Your task to perform on an android device: turn pop-ups off in chrome Image 0: 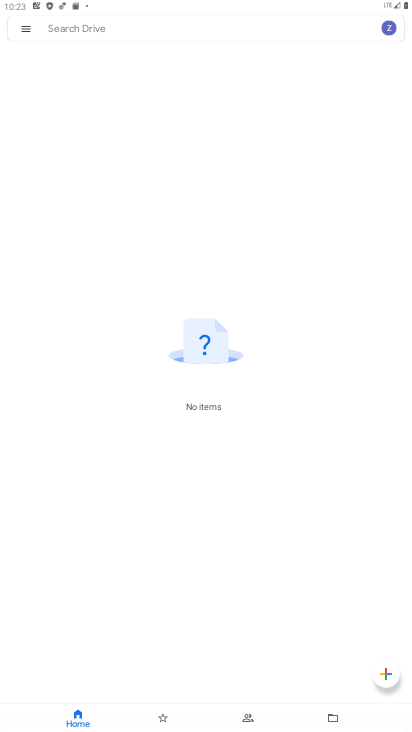
Step 0: press home button
Your task to perform on an android device: turn pop-ups off in chrome Image 1: 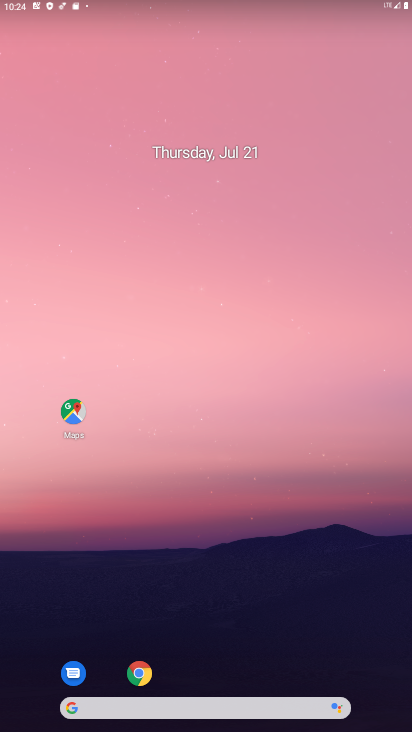
Step 1: click (148, 667)
Your task to perform on an android device: turn pop-ups off in chrome Image 2: 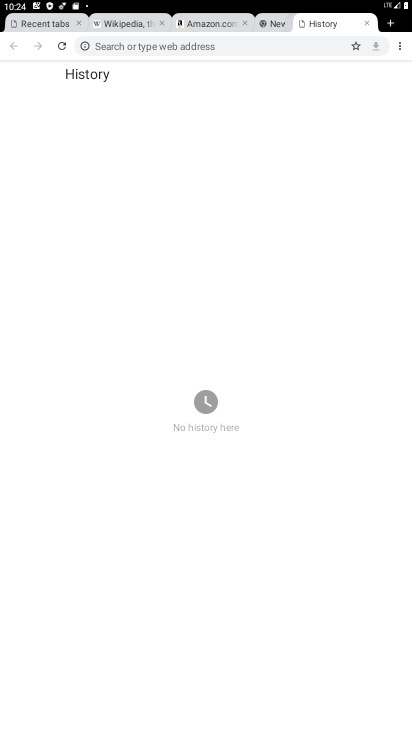
Step 2: click (393, 51)
Your task to perform on an android device: turn pop-ups off in chrome Image 3: 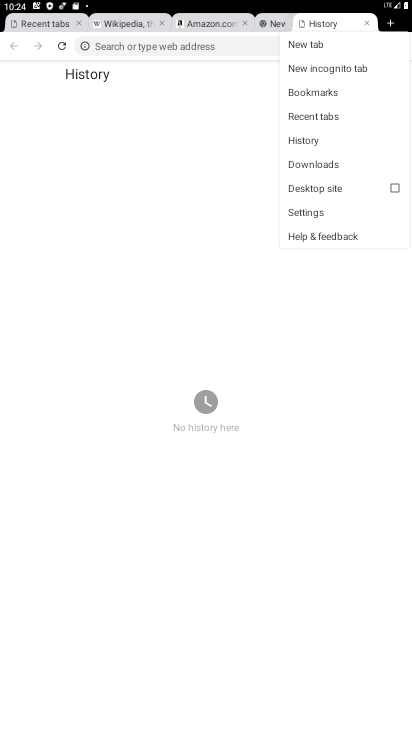
Step 3: click (302, 215)
Your task to perform on an android device: turn pop-ups off in chrome Image 4: 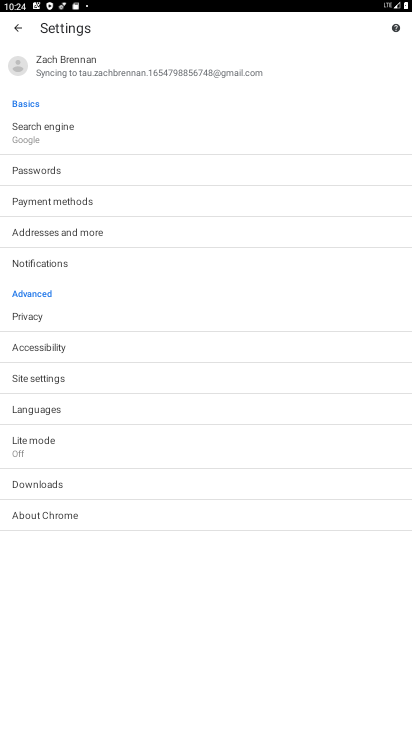
Step 4: click (98, 384)
Your task to perform on an android device: turn pop-ups off in chrome Image 5: 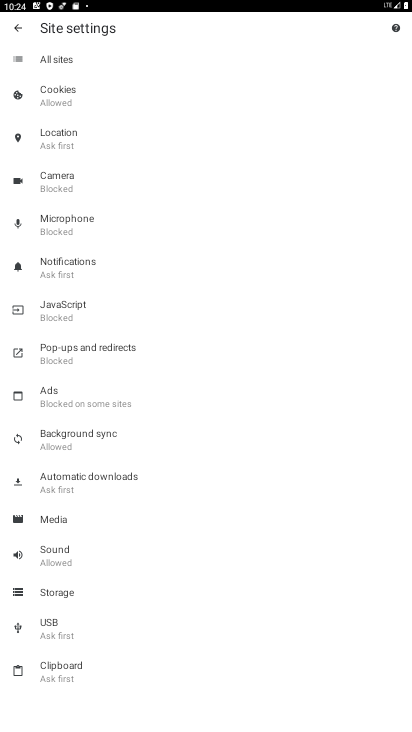
Step 5: click (126, 355)
Your task to perform on an android device: turn pop-ups off in chrome Image 6: 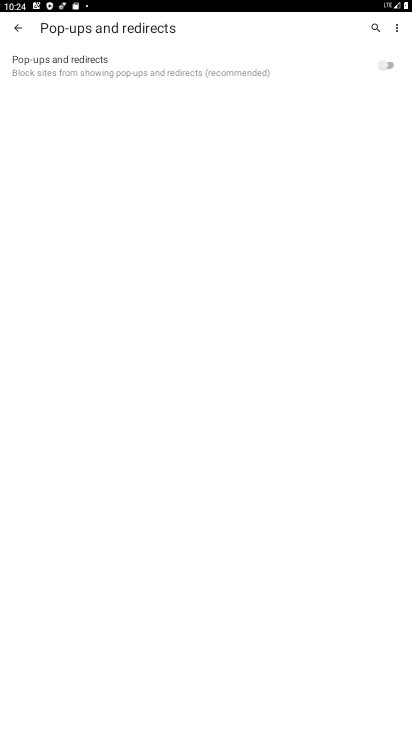
Step 6: task complete